Your task to perform on an android device: allow notifications from all sites in the chrome app Image 0: 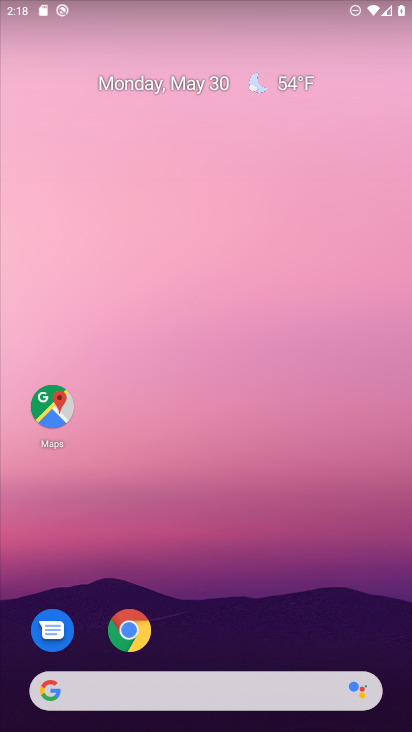
Step 0: drag from (245, 669) to (280, 88)
Your task to perform on an android device: allow notifications from all sites in the chrome app Image 1: 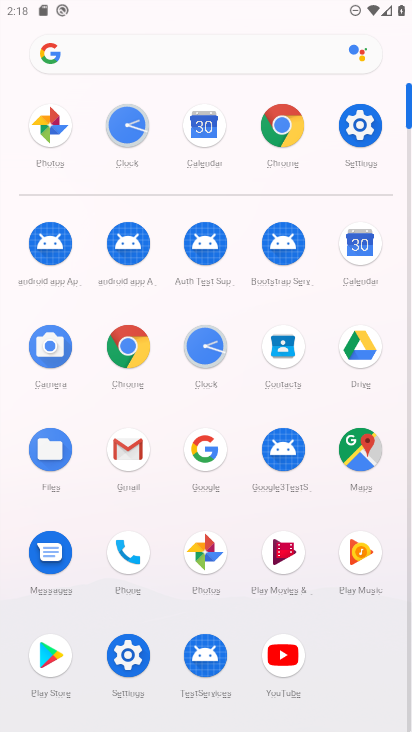
Step 1: click (282, 120)
Your task to perform on an android device: allow notifications from all sites in the chrome app Image 2: 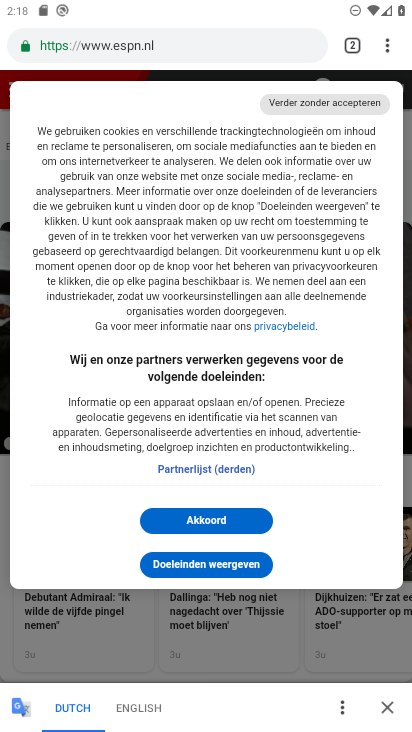
Step 2: drag from (377, 46) to (225, 551)
Your task to perform on an android device: allow notifications from all sites in the chrome app Image 3: 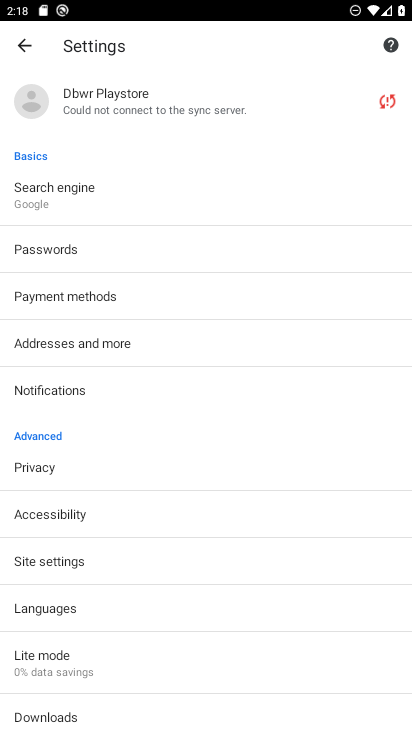
Step 3: click (99, 552)
Your task to perform on an android device: allow notifications from all sites in the chrome app Image 4: 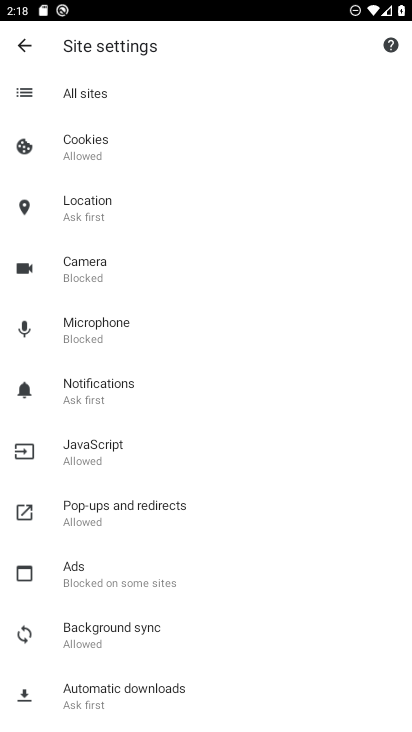
Step 4: click (118, 393)
Your task to perform on an android device: allow notifications from all sites in the chrome app Image 5: 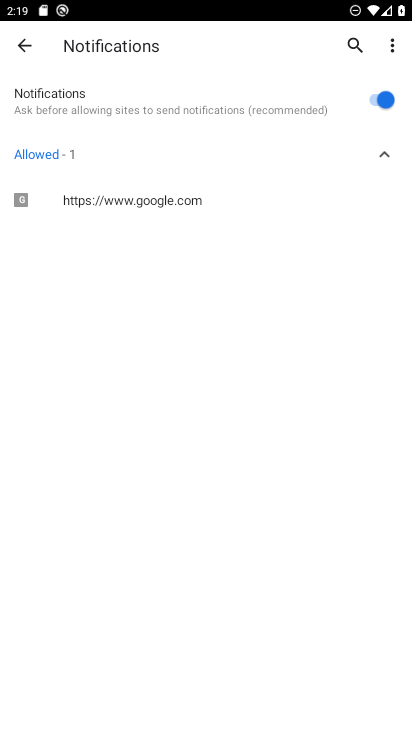
Step 5: task complete